Your task to perform on an android device: Open Google Chrome and open the bookmarks view Image 0: 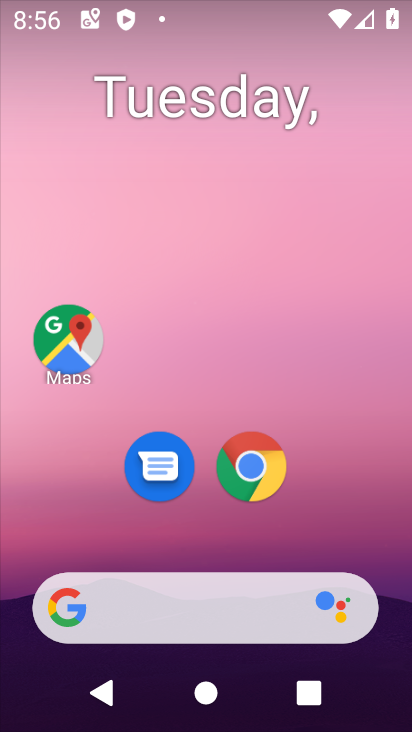
Step 0: click (249, 474)
Your task to perform on an android device: Open Google Chrome and open the bookmarks view Image 1: 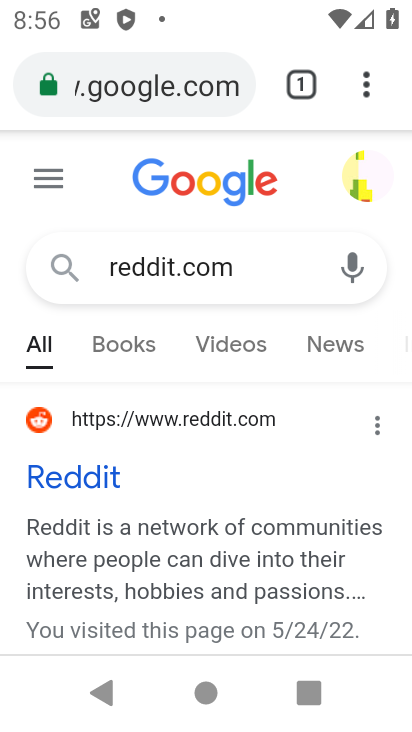
Step 1: click (363, 82)
Your task to perform on an android device: Open Google Chrome and open the bookmarks view Image 2: 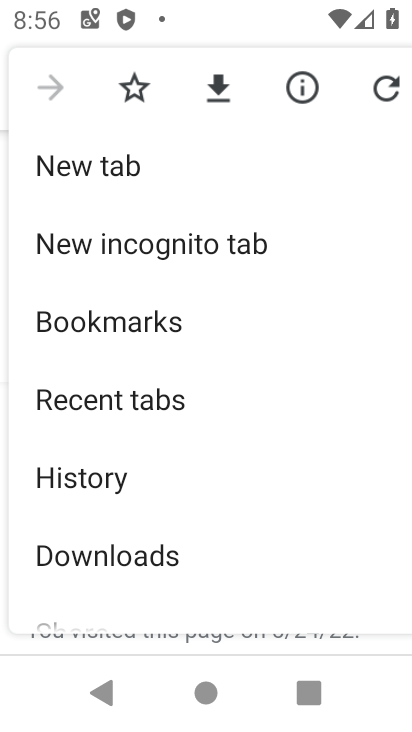
Step 2: click (184, 325)
Your task to perform on an android device: Open Google Chrome and open the bookmarks view Image 3: 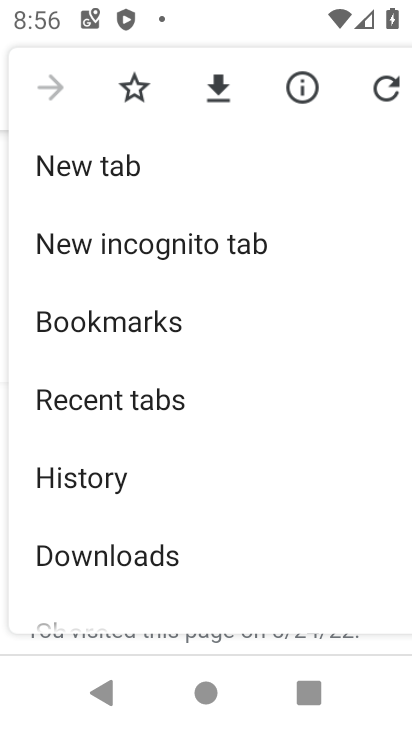
Step 3: click (184, 325)
Your task to perform on an android device: Open Google Chrome and open the bookmarks view Image 4: 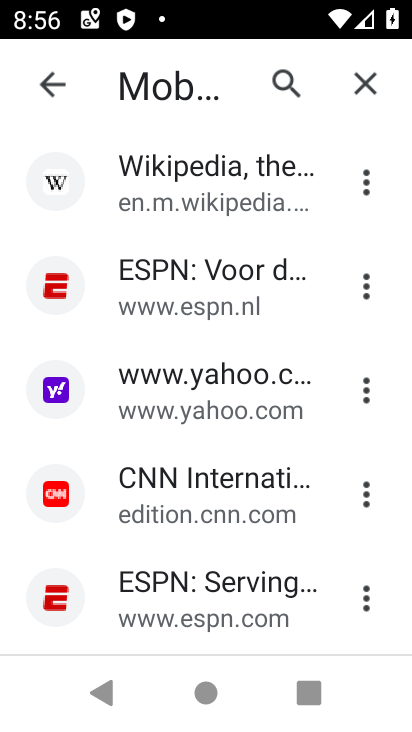
Step 4: click (184, 325)
Your task to perform on an android device: Open Google Chrome and open the bookmarks view Image 5: 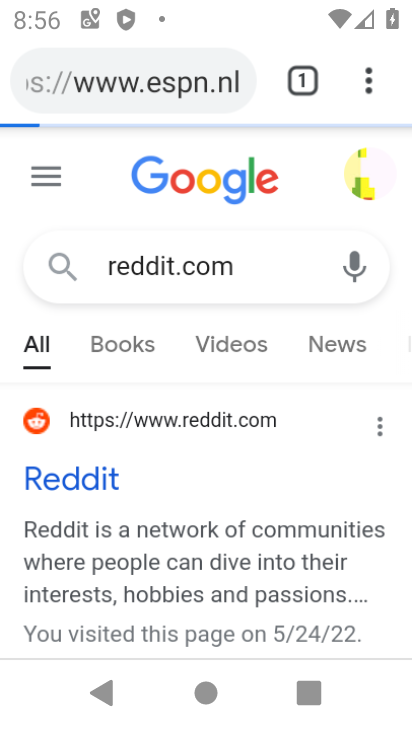
Step 5: task complete